Your task to perform on an android device: Open accessibility settings Image 0: 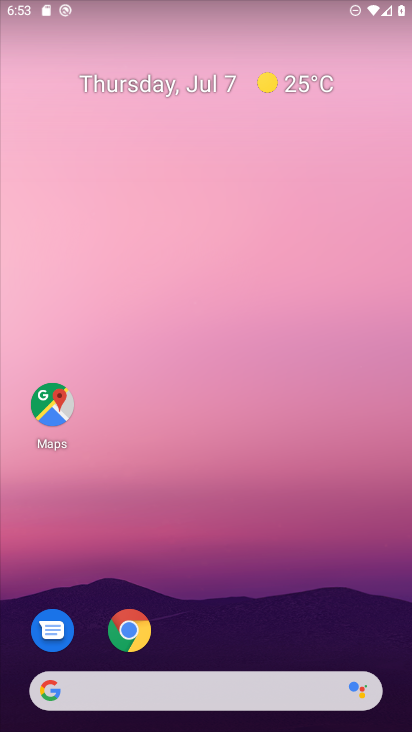
Step 0: drag from (221, 594) to (145, 187)
Your task to perform on an android device: Open accessibility settings Image 1: 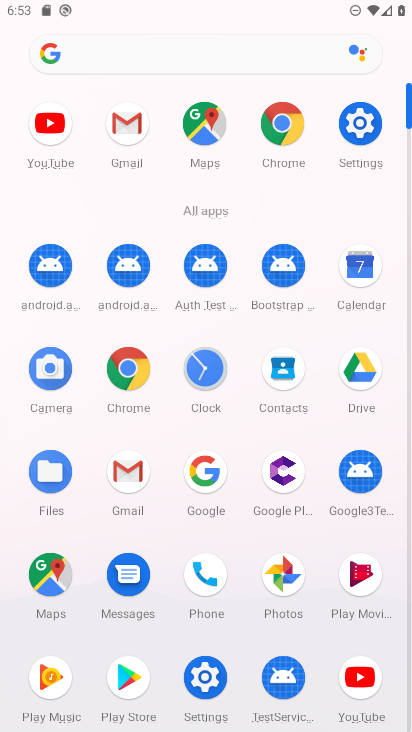
Step 1: click (364, 119)
Your task to perform on an android device: Open accessibility settings Image 2: 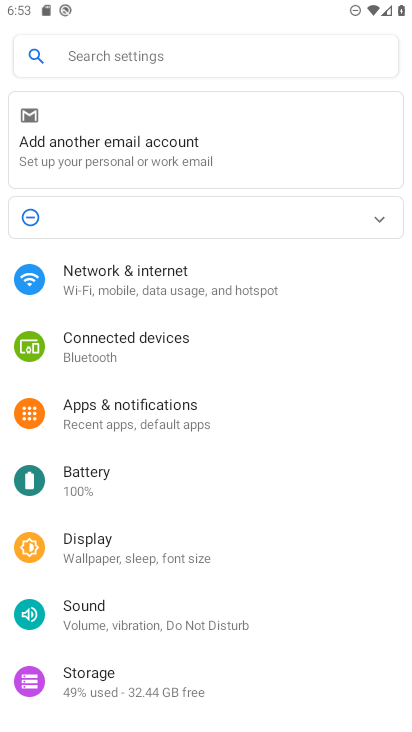
Step 2: drag from (197, 666) to (178, 405)
Your task to perform on an android device: Open accessibility settings Image 3: 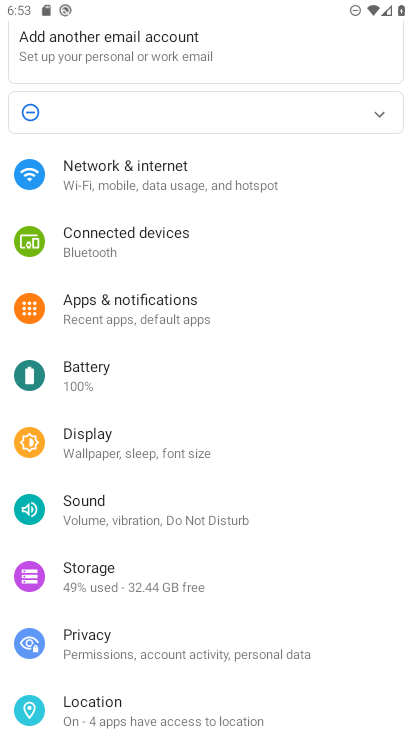
Step 3: drag from (223, 595) to (200, 312)
Your task to perform on an android device: Open accessibility settings Image 4: 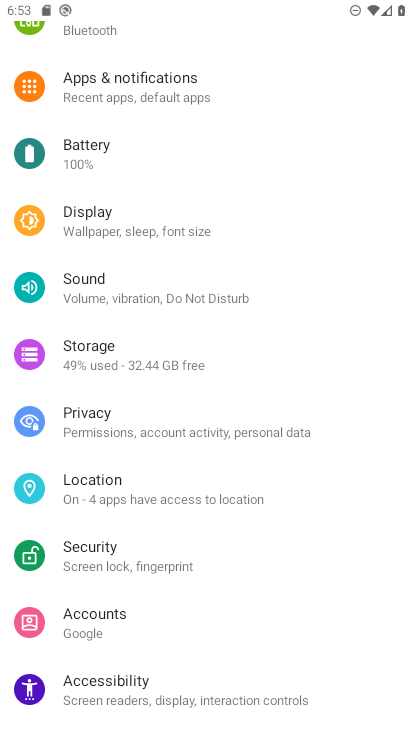
Step 4: click (117, 676)
Your task to perform on an android device: Open accessibility settings Image 5: 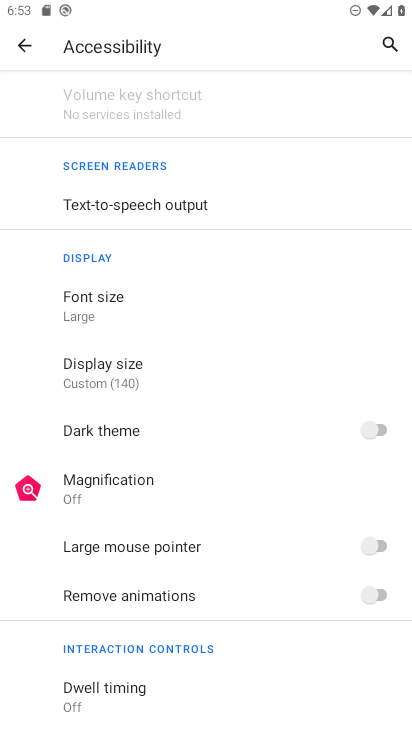
Step 5: task complete